Your task to perform on an android device: Find coffee shops on Maps Image 0: 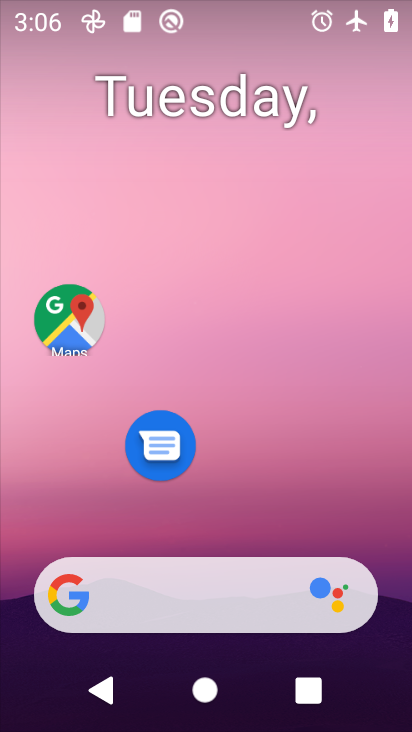
Step 0: click (65, 332)
Your task to perform on an android device: Find coffee shops on Maps Image 1: 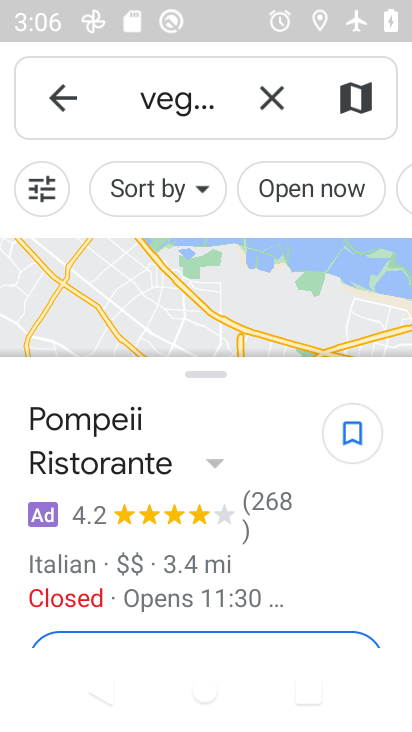
Step 1: click (278, 91)
Your task to perform on an android device: Find coffee shops on Maps Image 2: 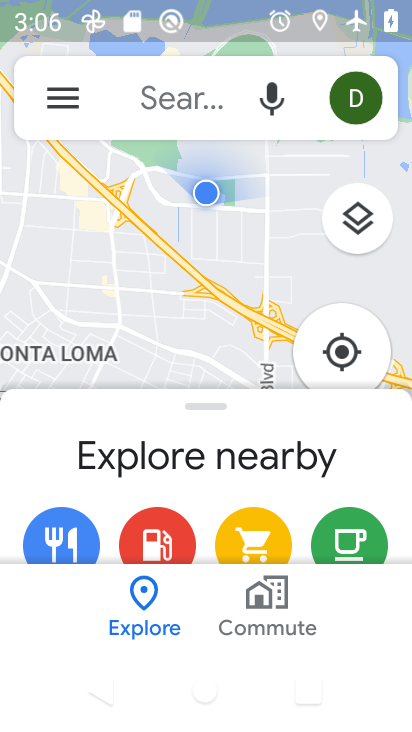
Step 2: click (189, 97)
Your task to perform on an android device: Find coffee shops on Maps Image 3: 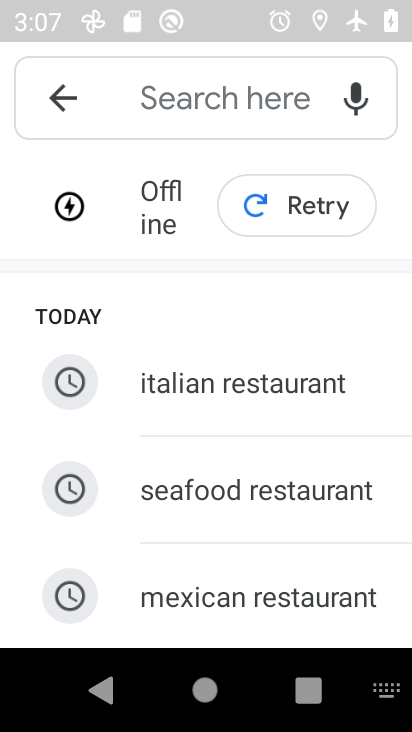
Step 3: type "coffee shops"
Your task to perform on an android device: Find coffee shops on Maps Image 4: 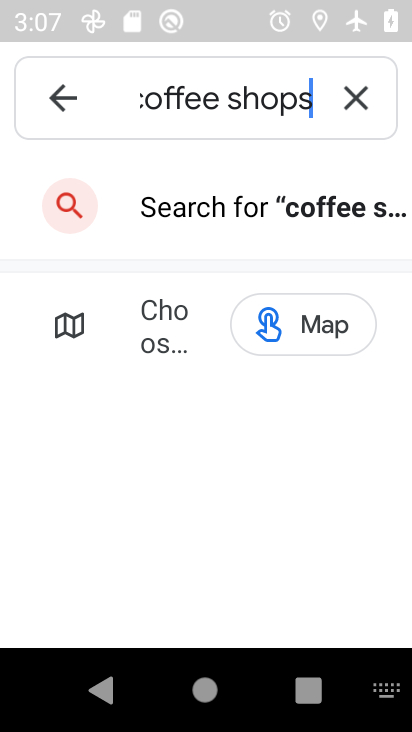
Step 4: click (328, 202)
Your task to perform on an android device: Find coffee shops on Maps Image 5: 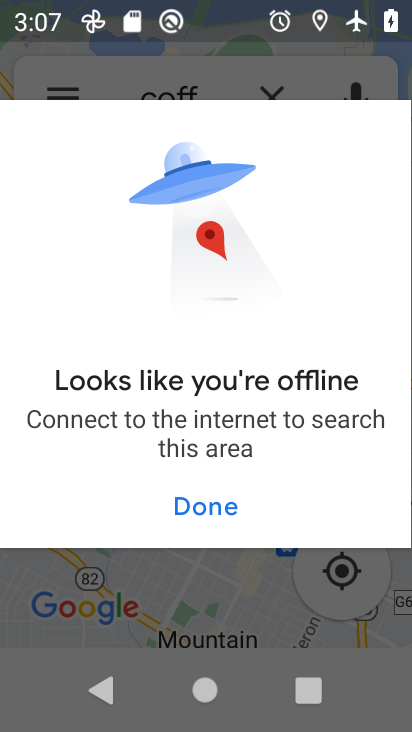
Step 5: click (208, 505)
Your task to perform on an android device: Find coffee shops on Maps Image 6: 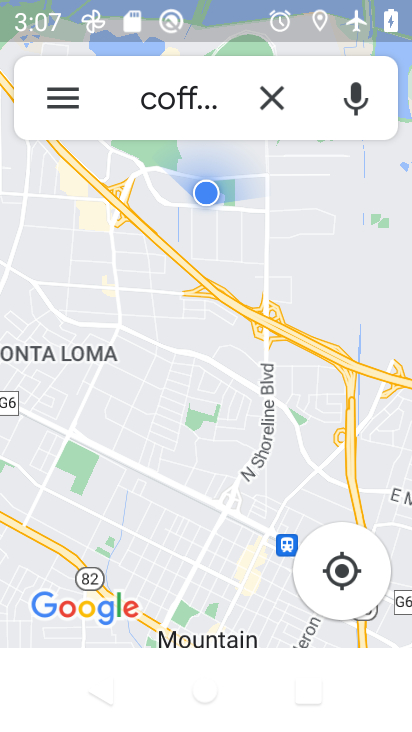
Step 6: task complete